Your task to perform on an android device: turn pop-ups off in chrome Image 0: 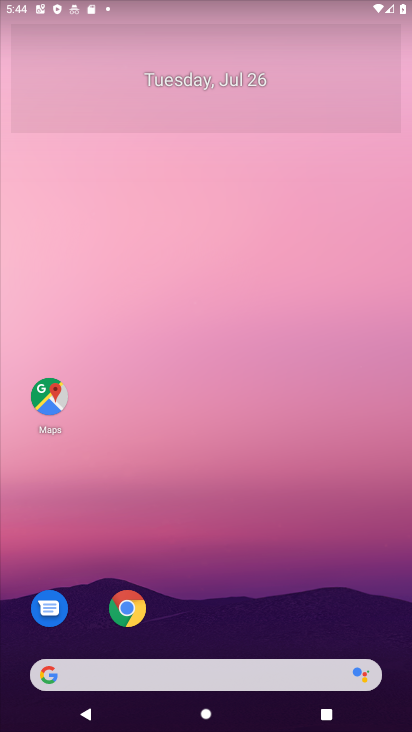
Step 0: press home button
Your task to perform on an android device: turn pop-ups off in chrome Image 1: 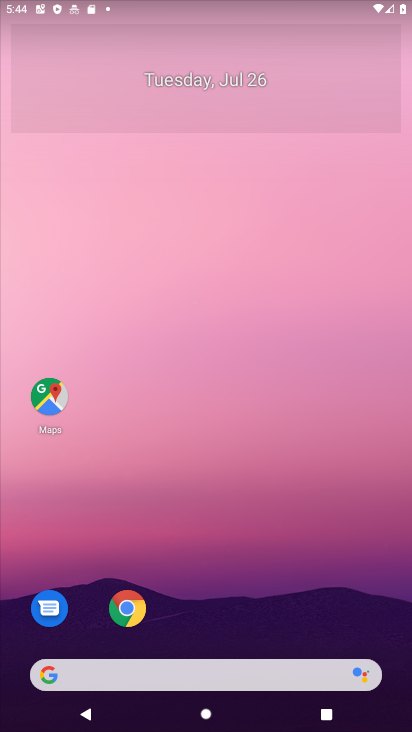
Step 1: press home button
Your task to perform on an android device: turn pop-ups off in chrome Image 2: 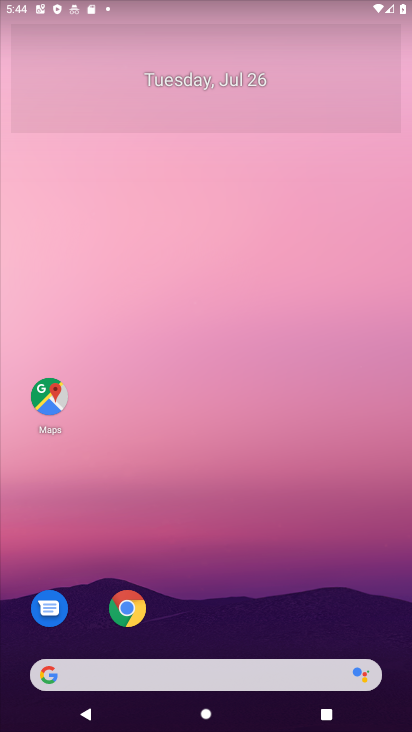
Step 2: drag from (294, 625) to (120, 0)
Your task to perform on an android device: turn pop-ups off in chrome Image 3: 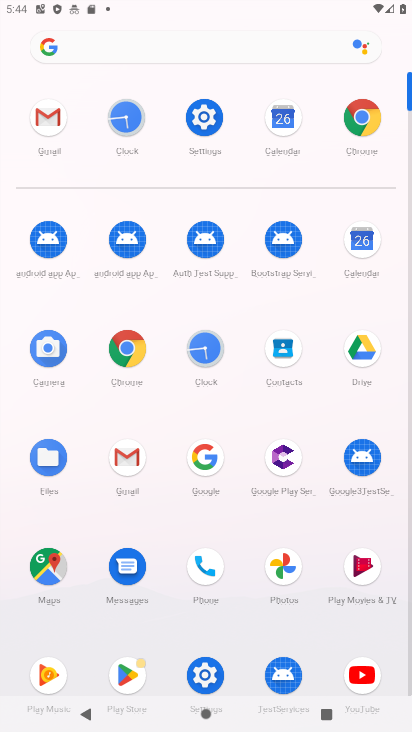
Step 3: click (369, 117)
Your task to perform on an android device: turn pop-ups off in chrome Image 4: 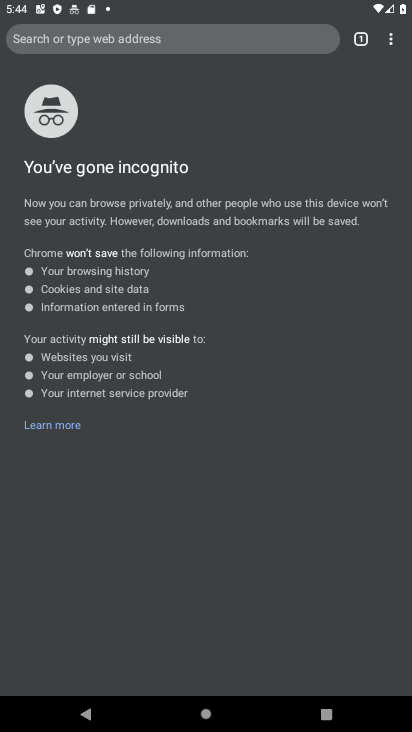
Step 4: drag from (389, 42) to (275, 287)
Your task to perform on an android device: turn pop-ups off in chrome Image 5: 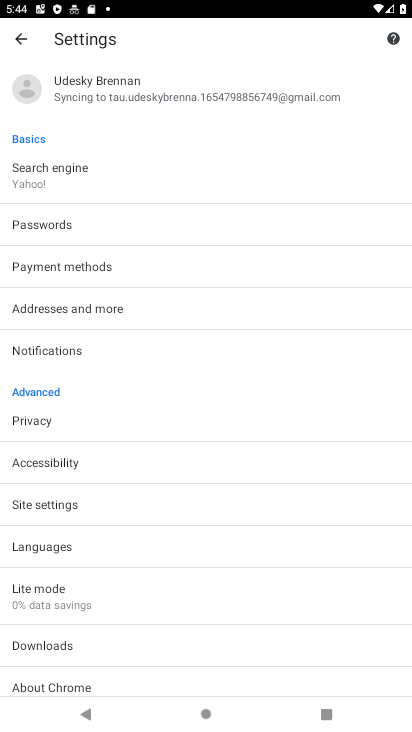
Step 5: click (53, 503)
Your task to perform on an android device: turn pop-ups off in chrome Image 6: 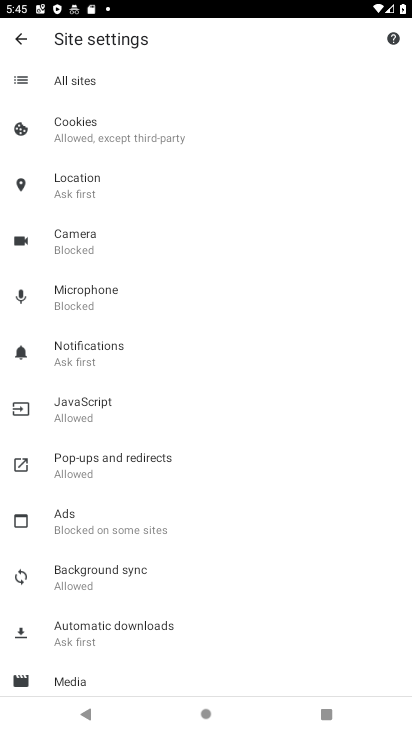
Step 6: click (119, 465)
Your task to perform on an android device: turn pop-ups off in chrome Image 7: 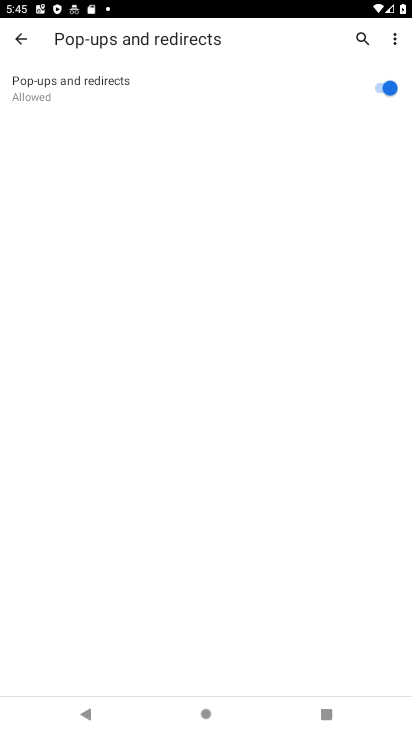
Step 7: click (392, 86)
Your task to perform on an android device: turn pop-ups off in chrome Image 8: 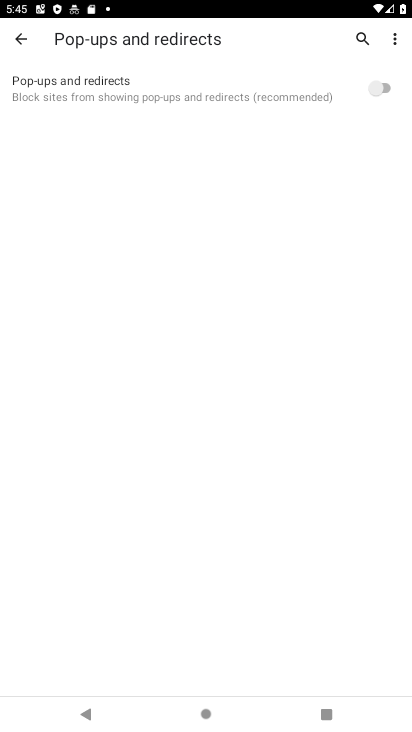
Step 8: task complete